Your task to perform on an android device: Search for flights from Buenos aires to Helsinki Image 0: 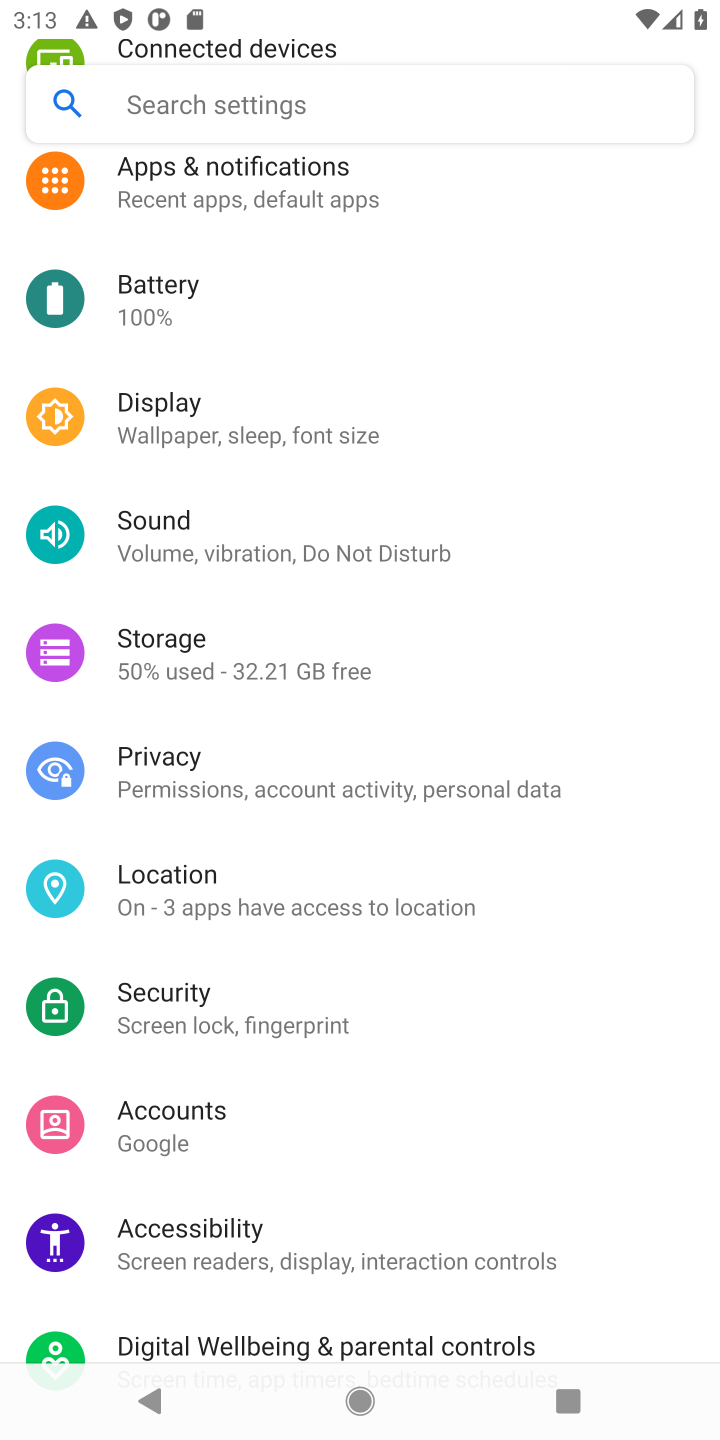
Step 0: press home button
Your task to perform on an android device: Search for flights from Buenos aires to Helsinki Image 1: 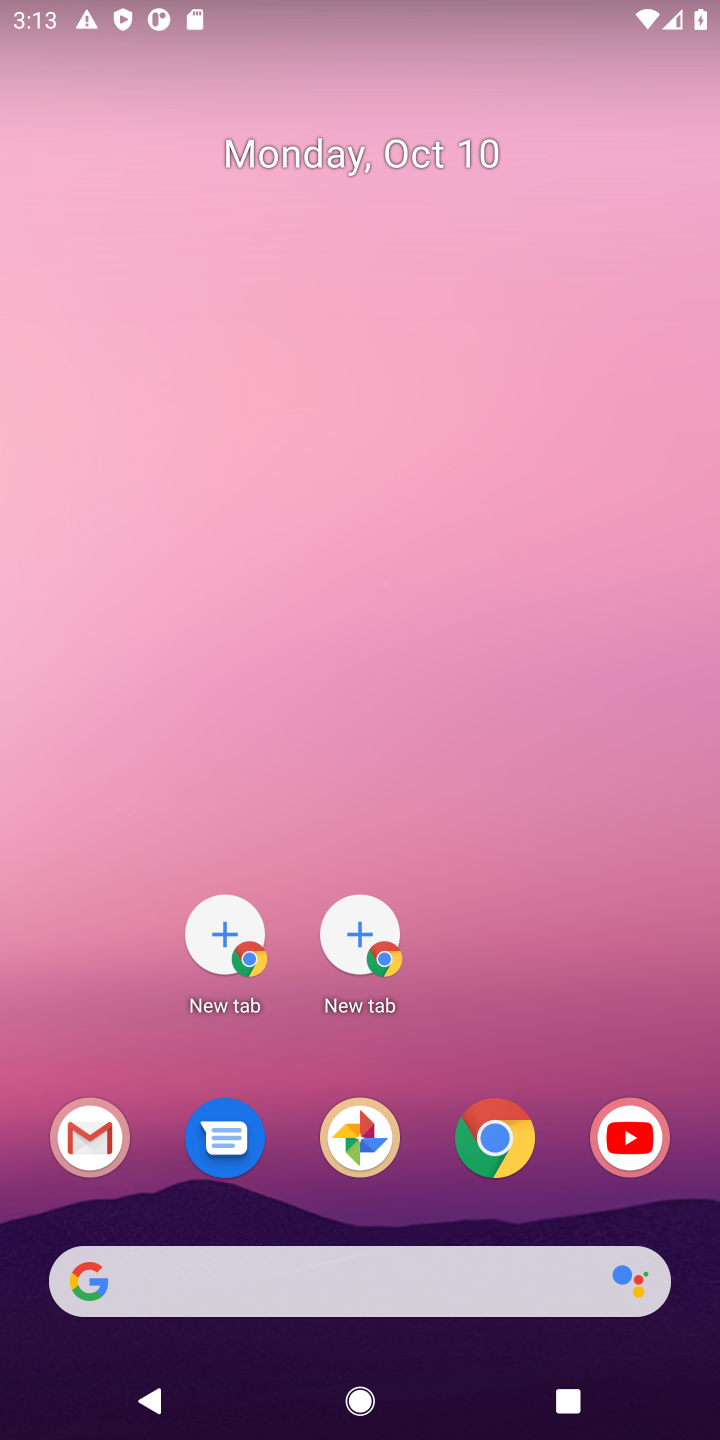
Step 1: click (512, 1151)
Your task to perform on an android device: Search for flights from Buenos aires to Helsinki Image 2: 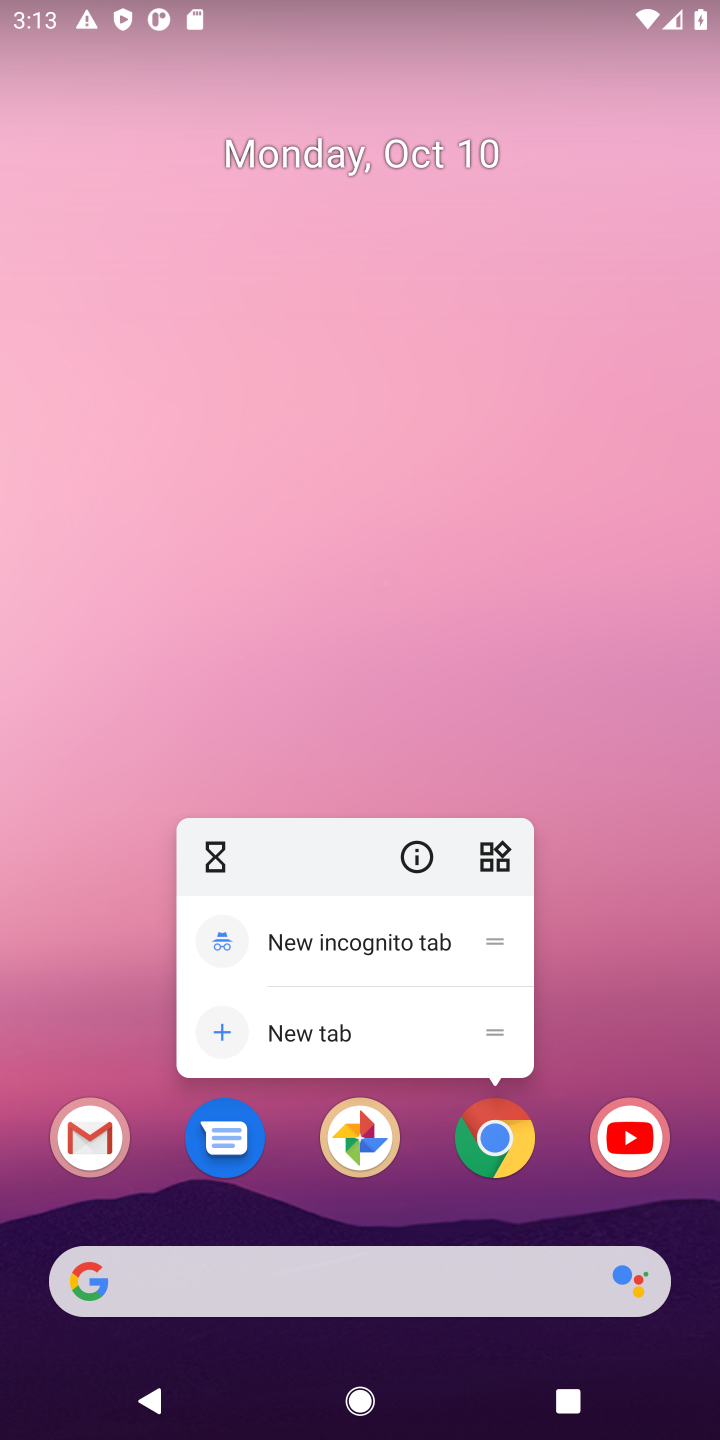
Step 2: click (496, 1165)
Your task to perform on an android device: Search for flights from Buenos aires to Helsinki Image 3: 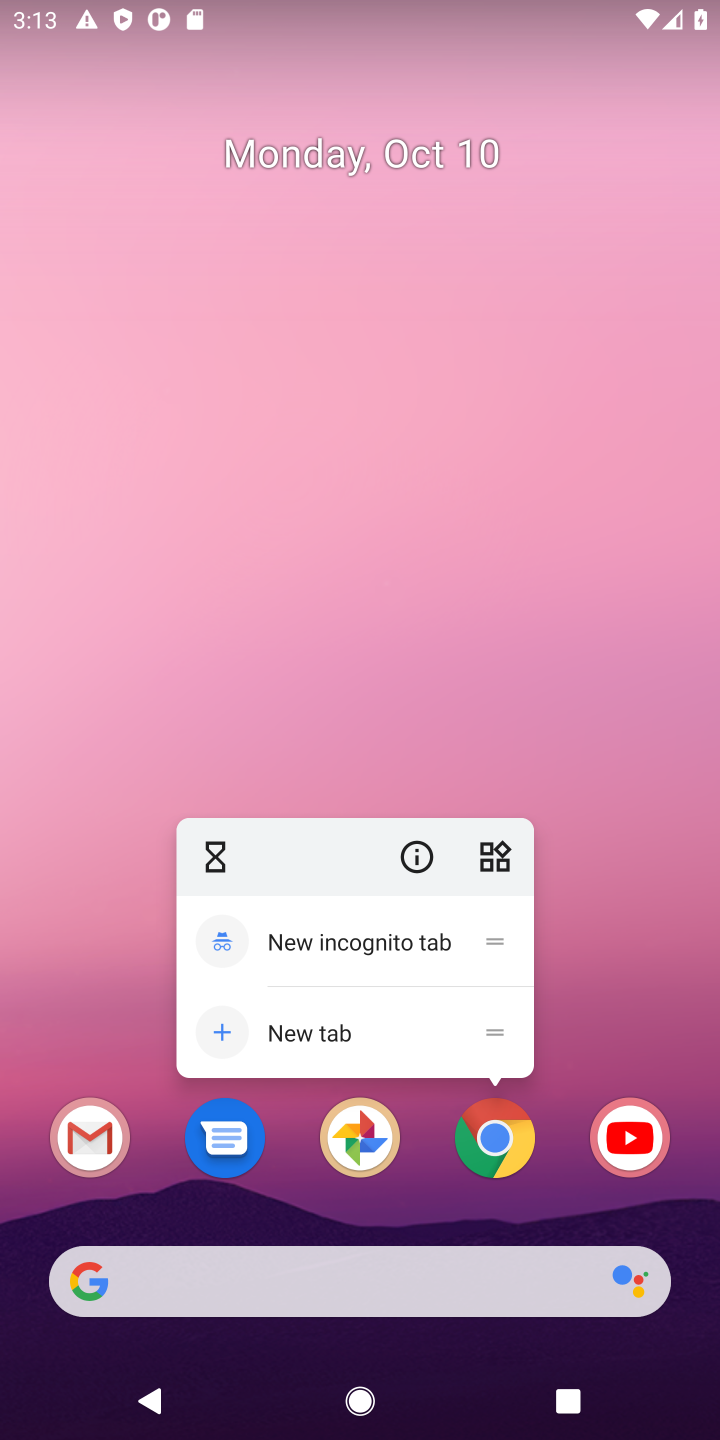
Step 3: click (508, 1139)
Your task to perform on an android device: Search for flights from Buenos aires to Helsinki Image 4: 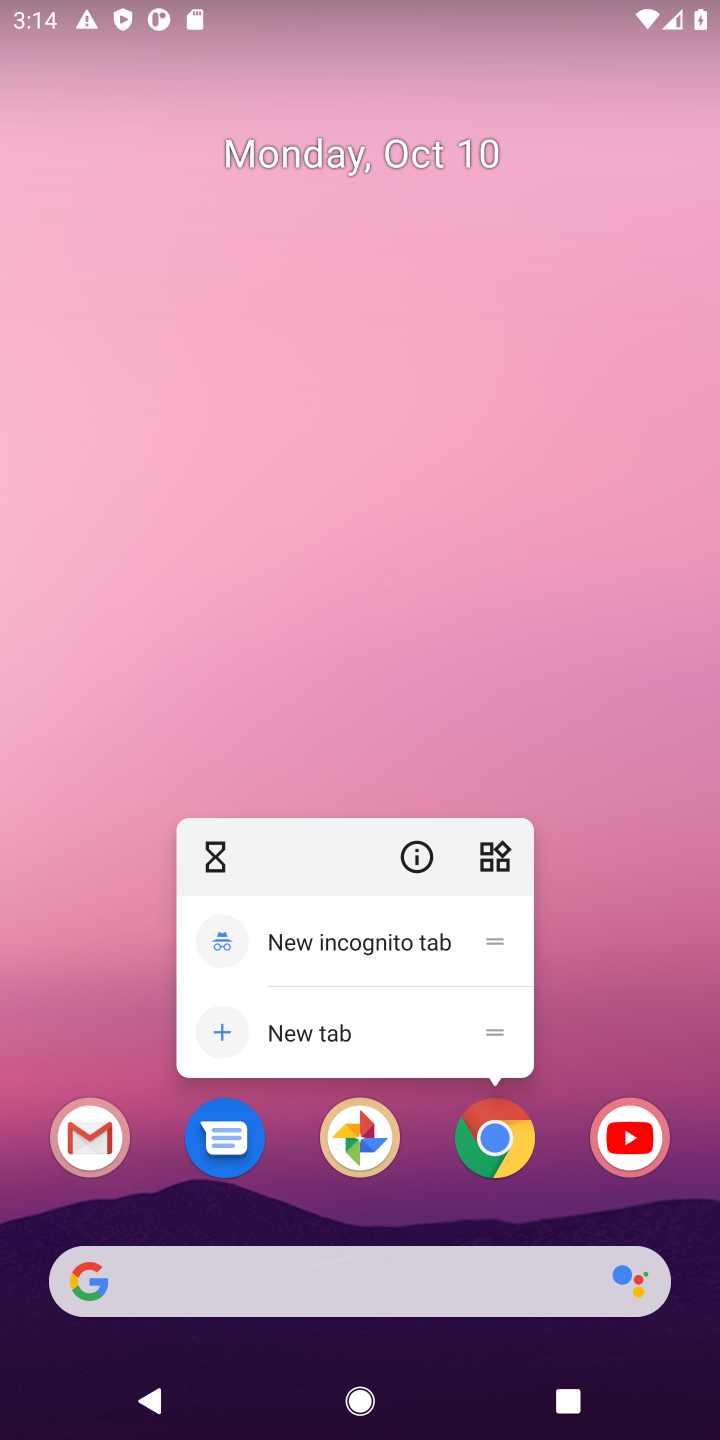
Step 4: click (489, 1143)
Your task to perform on an android device: Search for flights from Buenos aires to Helsinki Image 5: 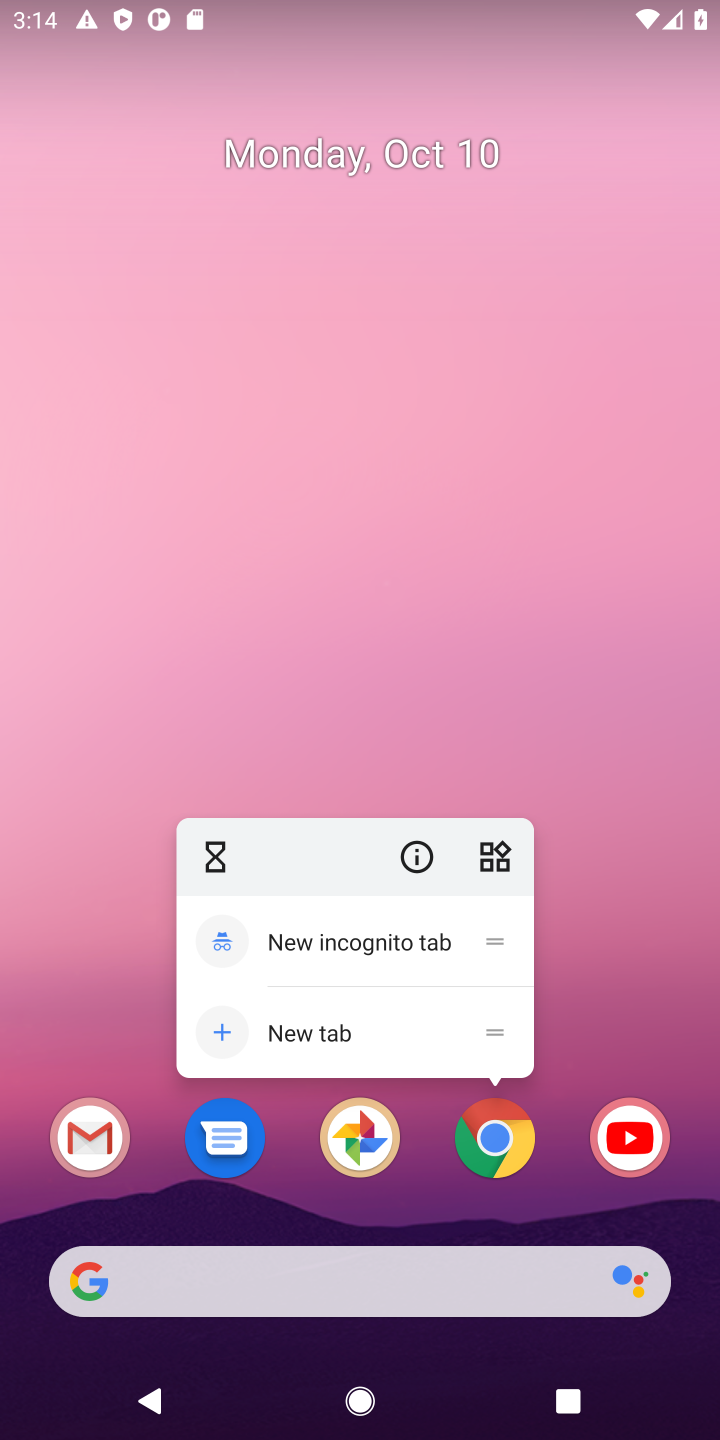
Step 5: drag from (417, 1265) to (360, 280)
Your task to perform on an android device: Search for flights from Buenos aires to Helsinki Image 6: 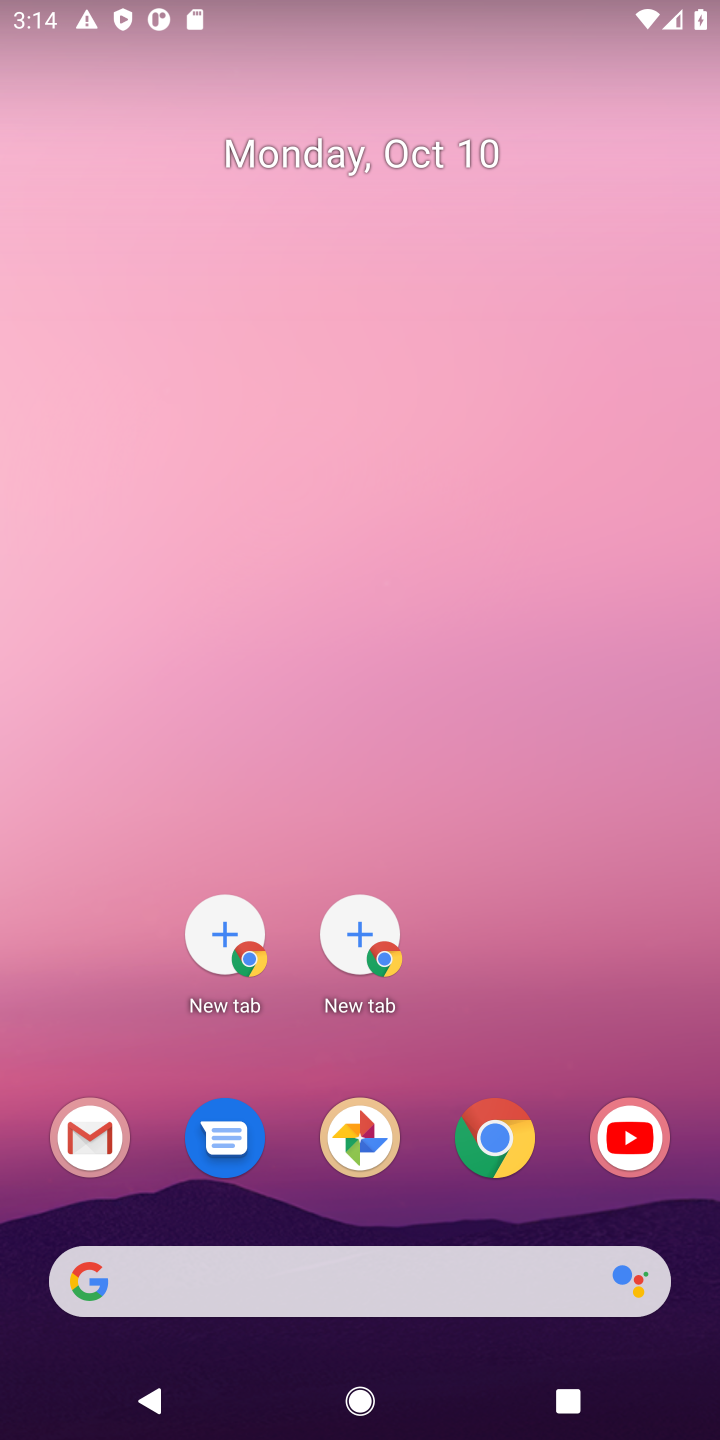
Step 6: click (374, 939)
Your task to perform on an android device: Search for flights from Buenos aires to Helsinki Image 7: 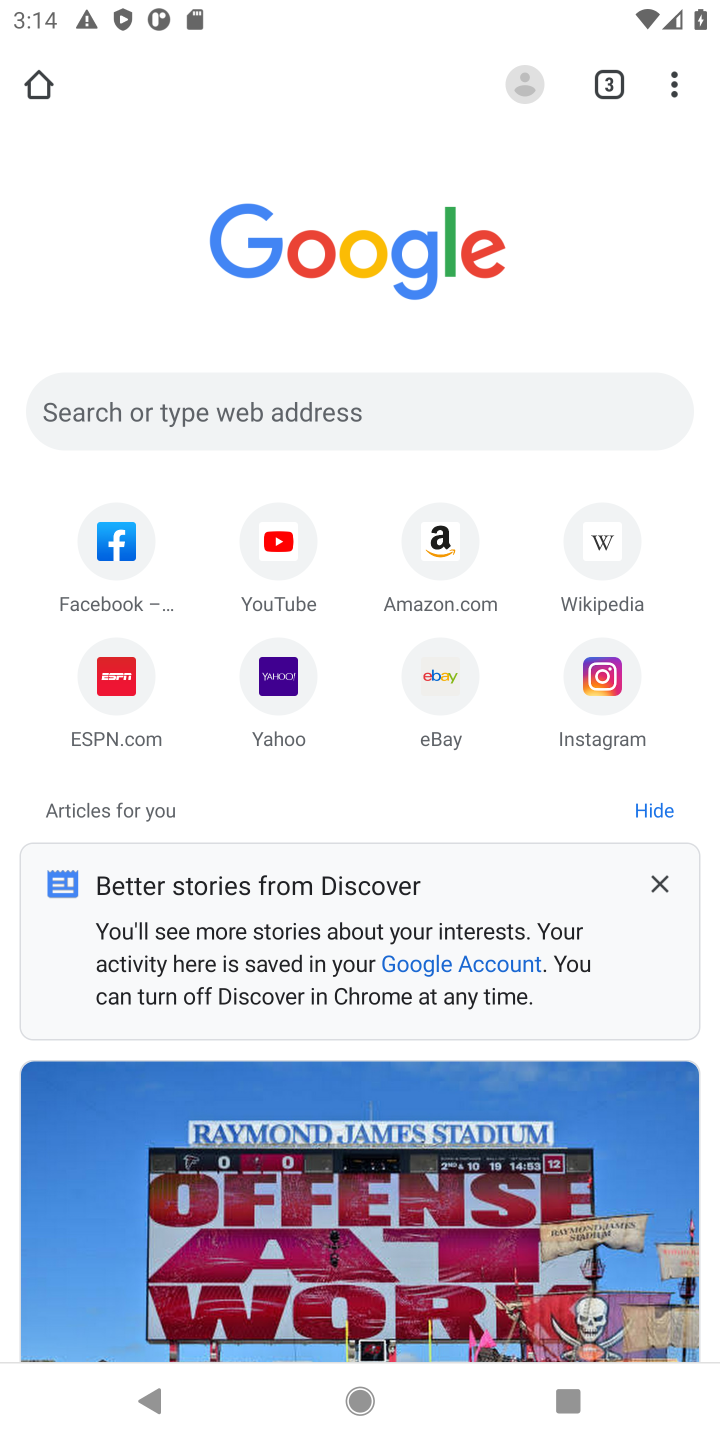
Step 7: click (599, 71)
Your task to perform on an android device: Search for flights from Buenos aires to Helsinki Image 8: 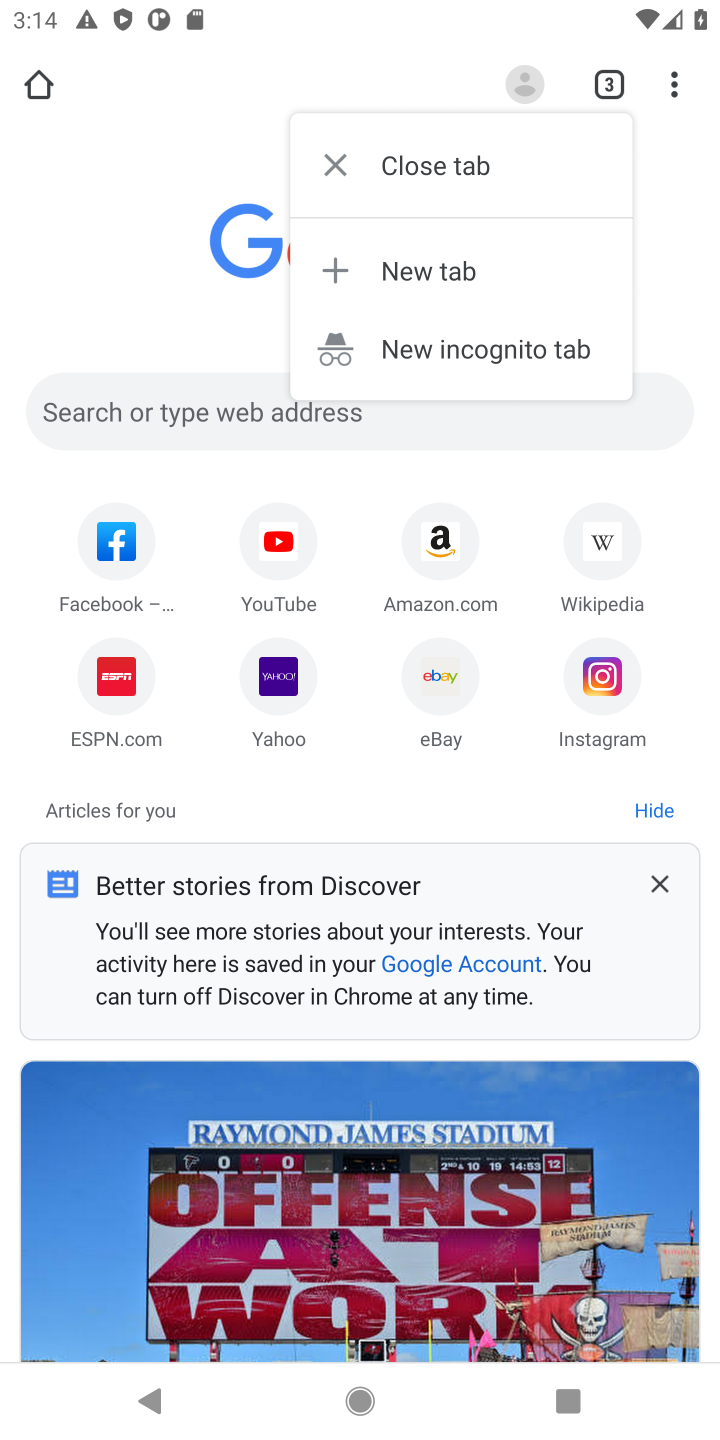
Step 8: click (501, 177)
Your task to perform on an android device: Search for flights from Buenos aires to Helsinki Image 9: 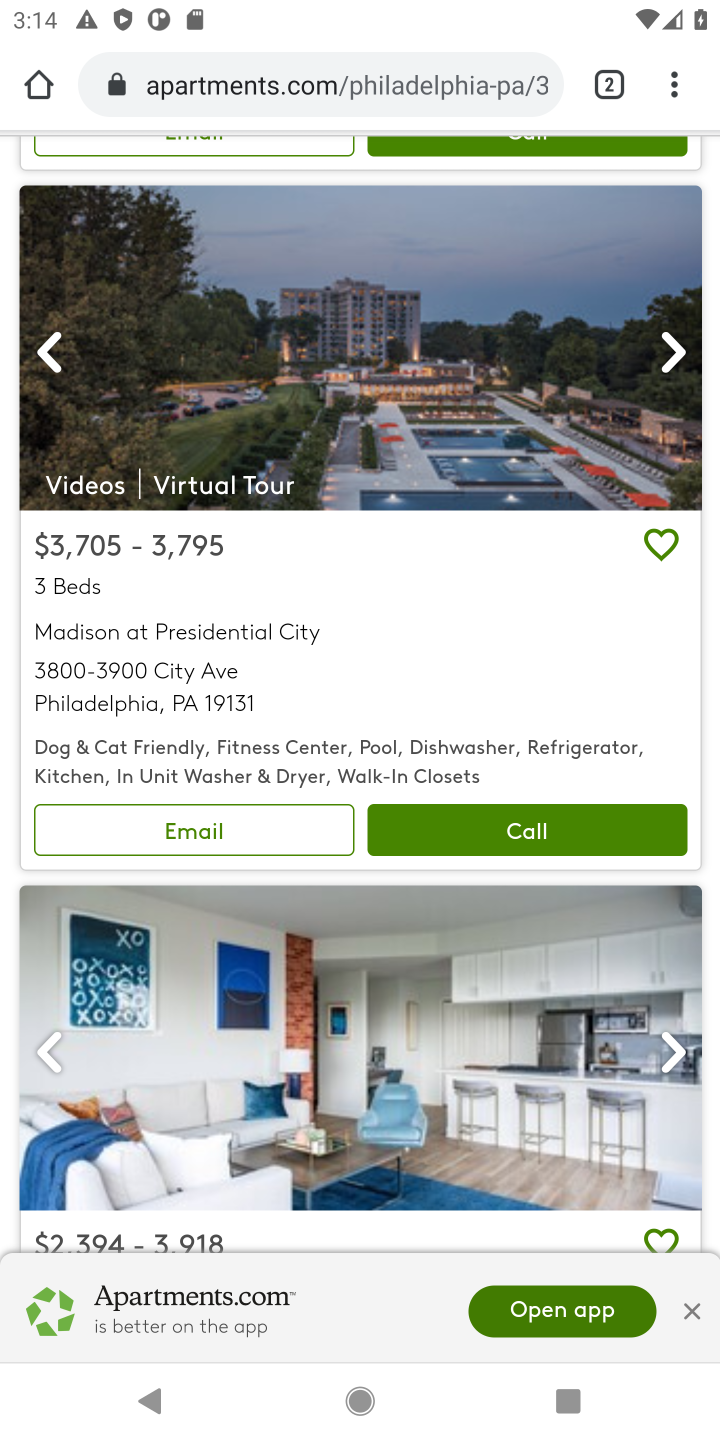
Step 9: click (600, 80)
Your task to perform on an android device: Search for flights from Buenos aires to Helsinki Image 10: 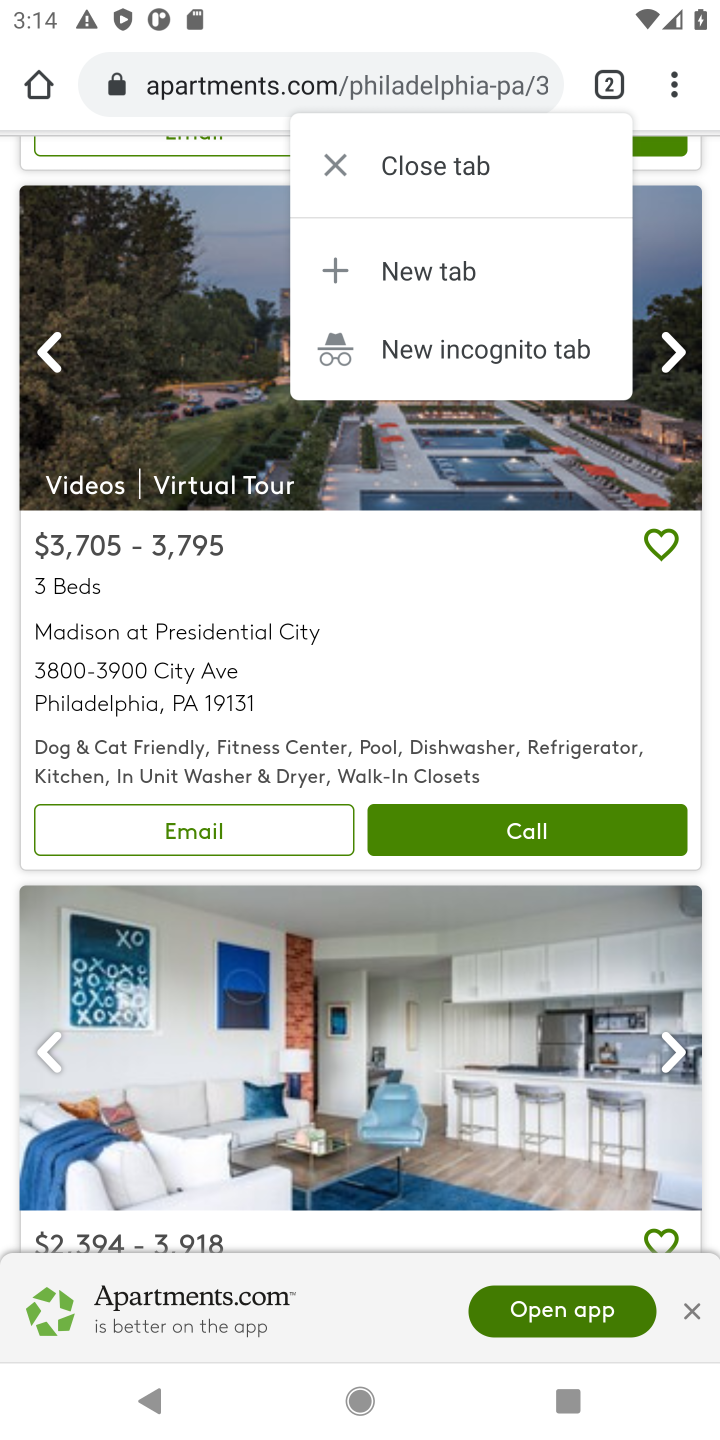
Step 10: click (334, 160)
Your task to perform on an android device: Search for flights from Buenos aires to Helsinki Image 11: 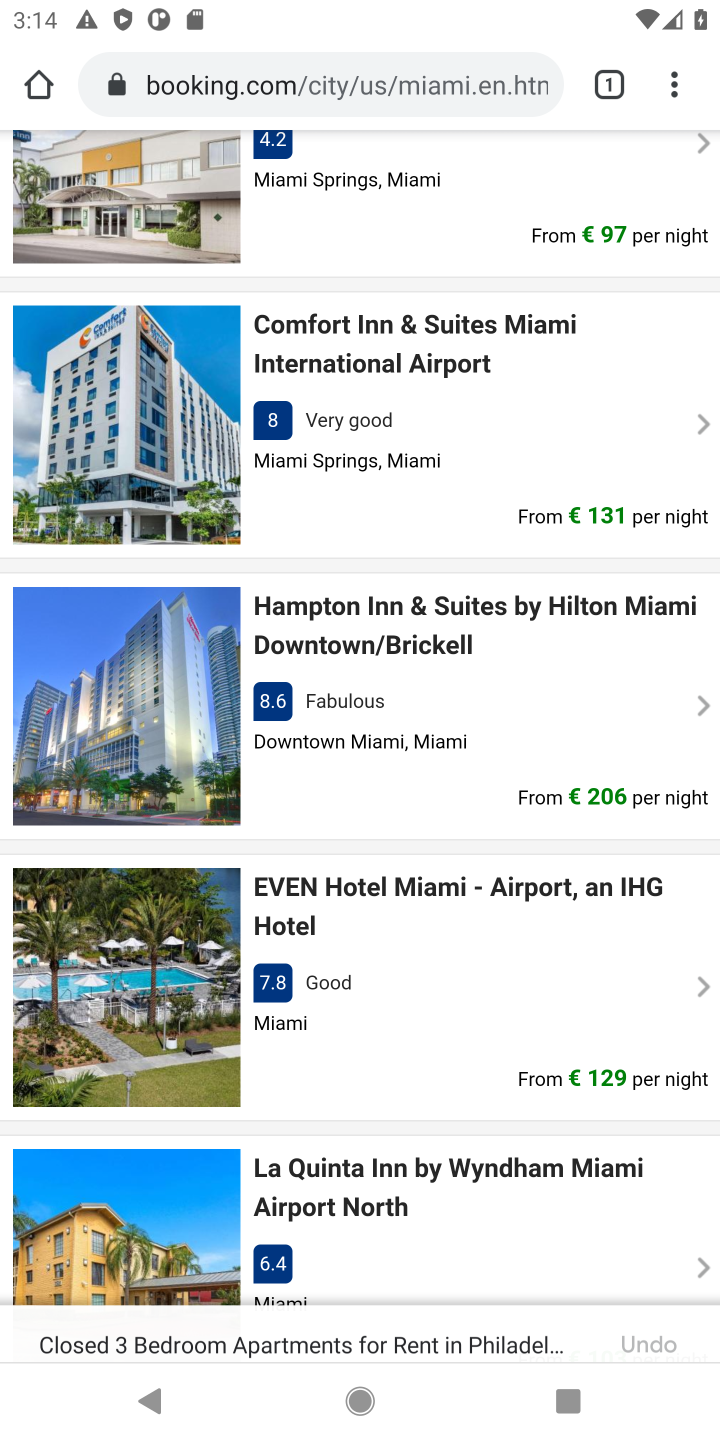
Step 11: click (377, 63)
Your task to perform on an android device: Search for flights from Buenos aires to Helsinki Image 12: 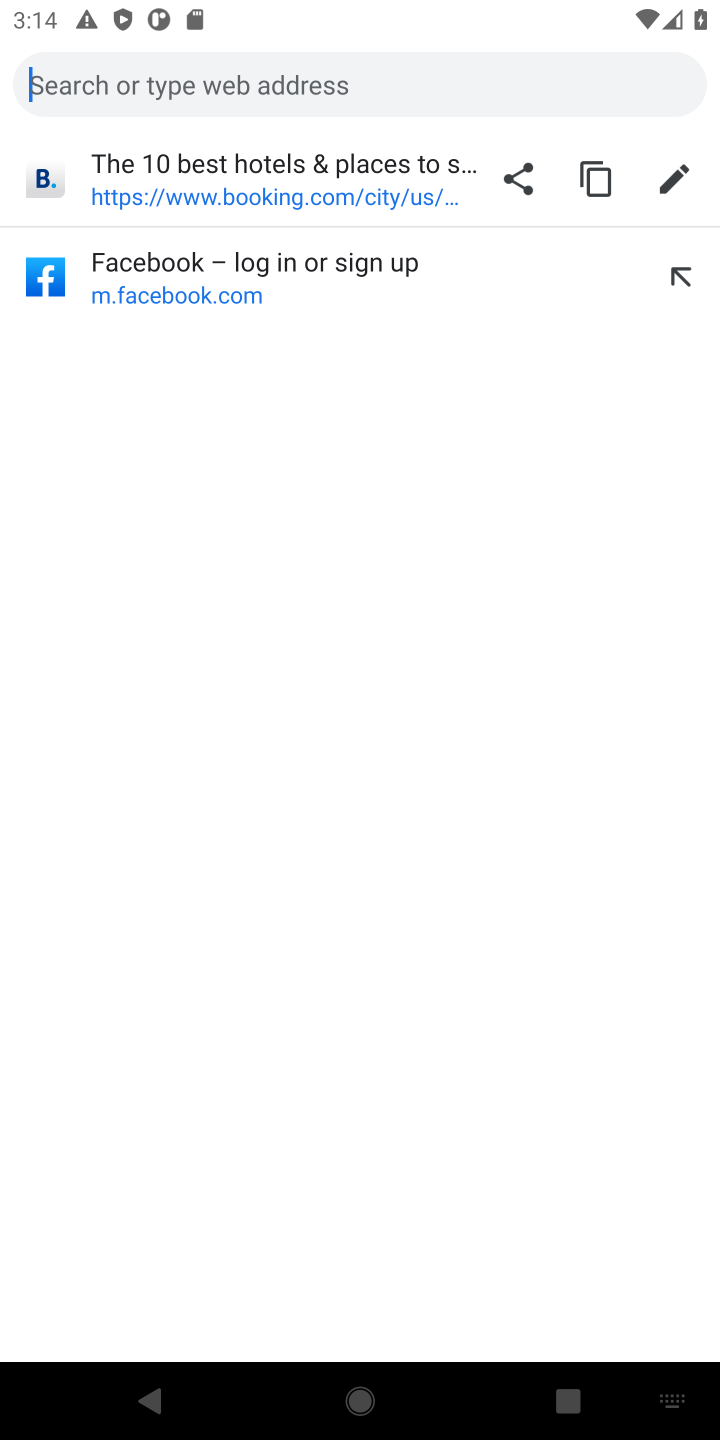
Step 12: type "flights from Buenos aired to Helsinki"
Your task to perform on an android device: Search for flights from Buenos aires to Helsinki Image 13: 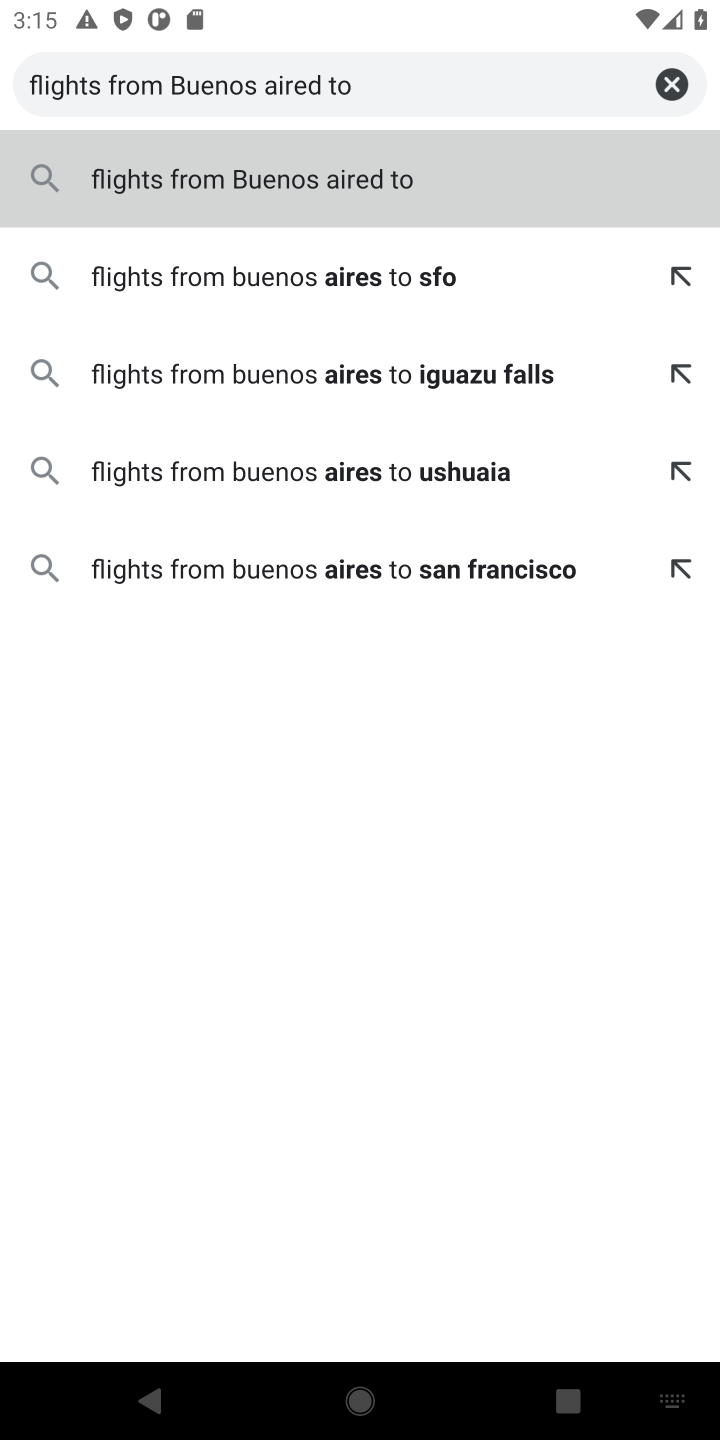
Step 13: type " Helsinki"
Your task to perform on an android device: Search for flights from Buenos aires to Helsinki Image 14: 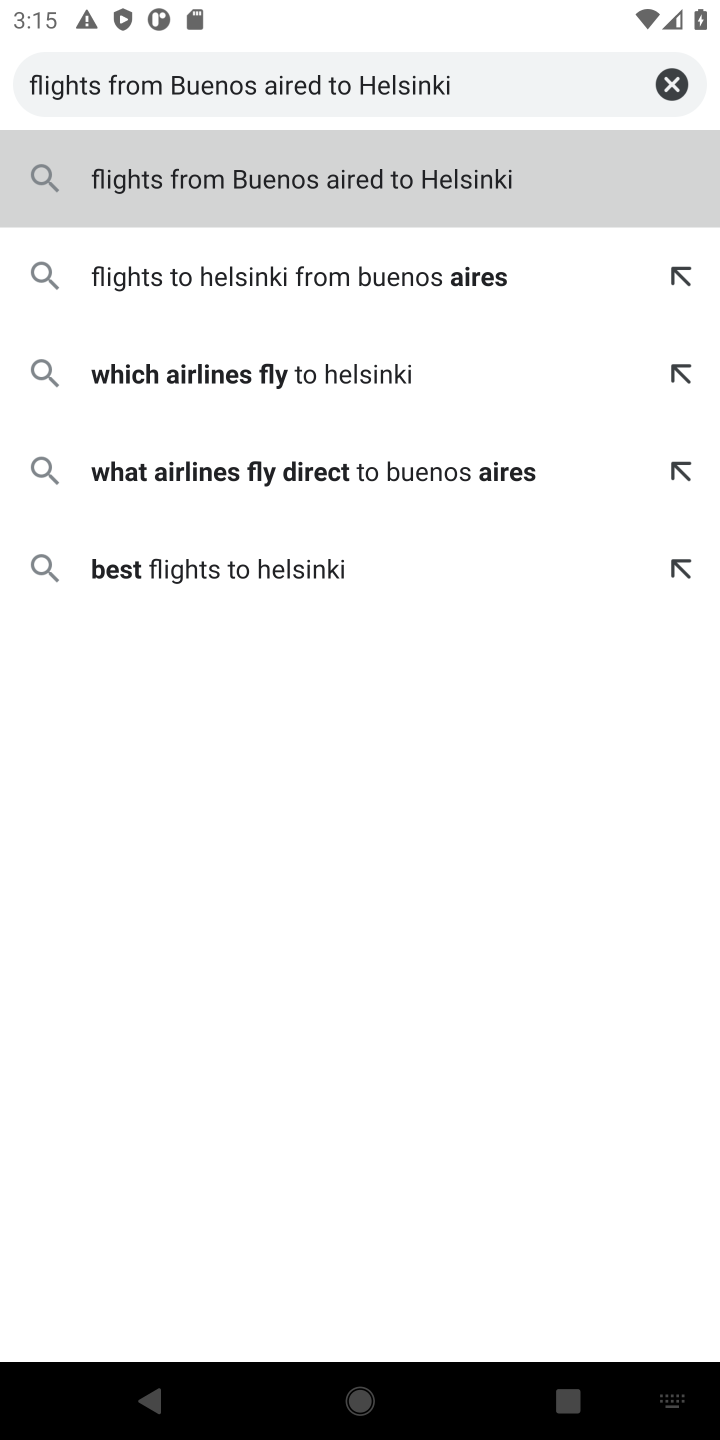
Step 14: press enter
Your task to perform on an android device: Search for flights from Buenos aires to Helsinki Image 15: 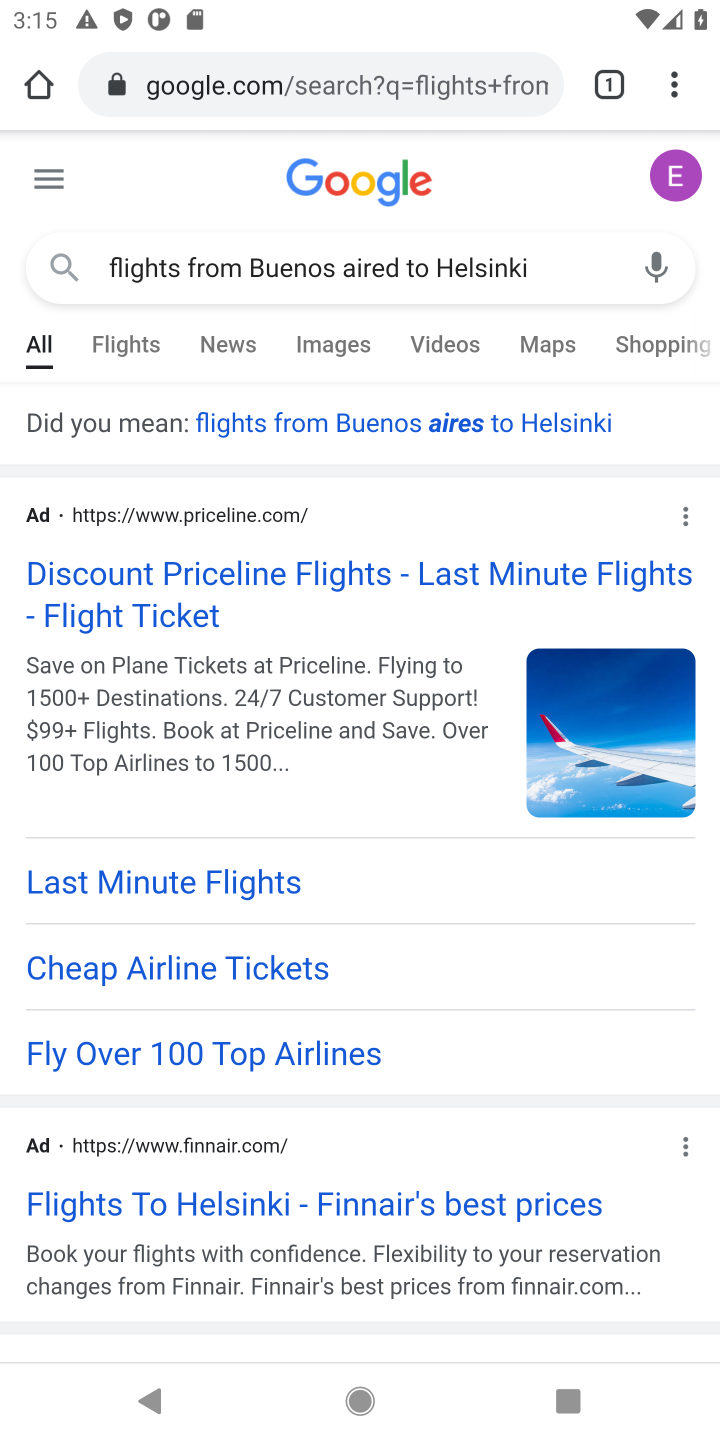
Step 15: drag from (469, 1110) to (462, 369)
Your task to perform on an android device: Search for flights from Buenos aires to Helsinki Image 16: 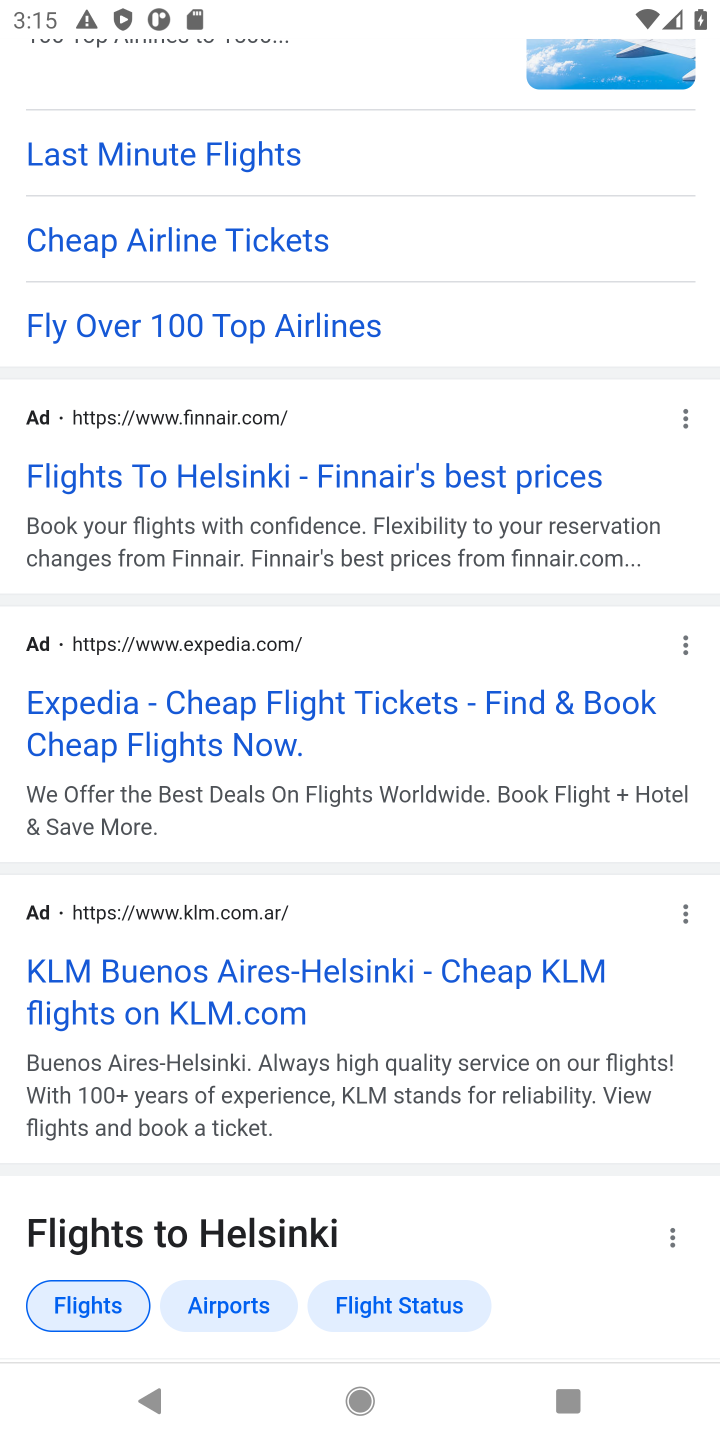
Step 16: drag from (404, 1203) to (494, 319)
Your task to perform on an android device: Search for flights from Buenos aires to Helsinki Image 17: 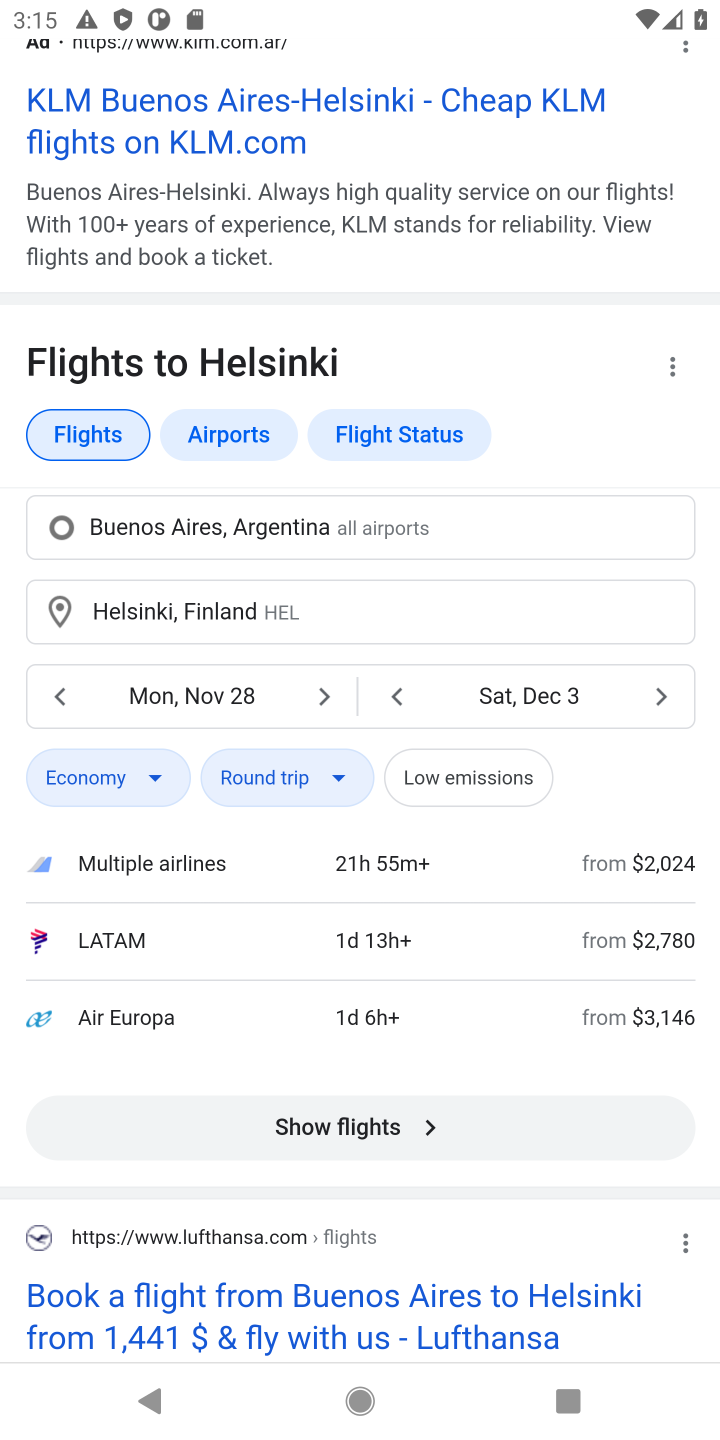
Step 17: click (438, 1141)
Your task to perform on an android device: Search for flights from Buenos aires to Helsinki Image 18: 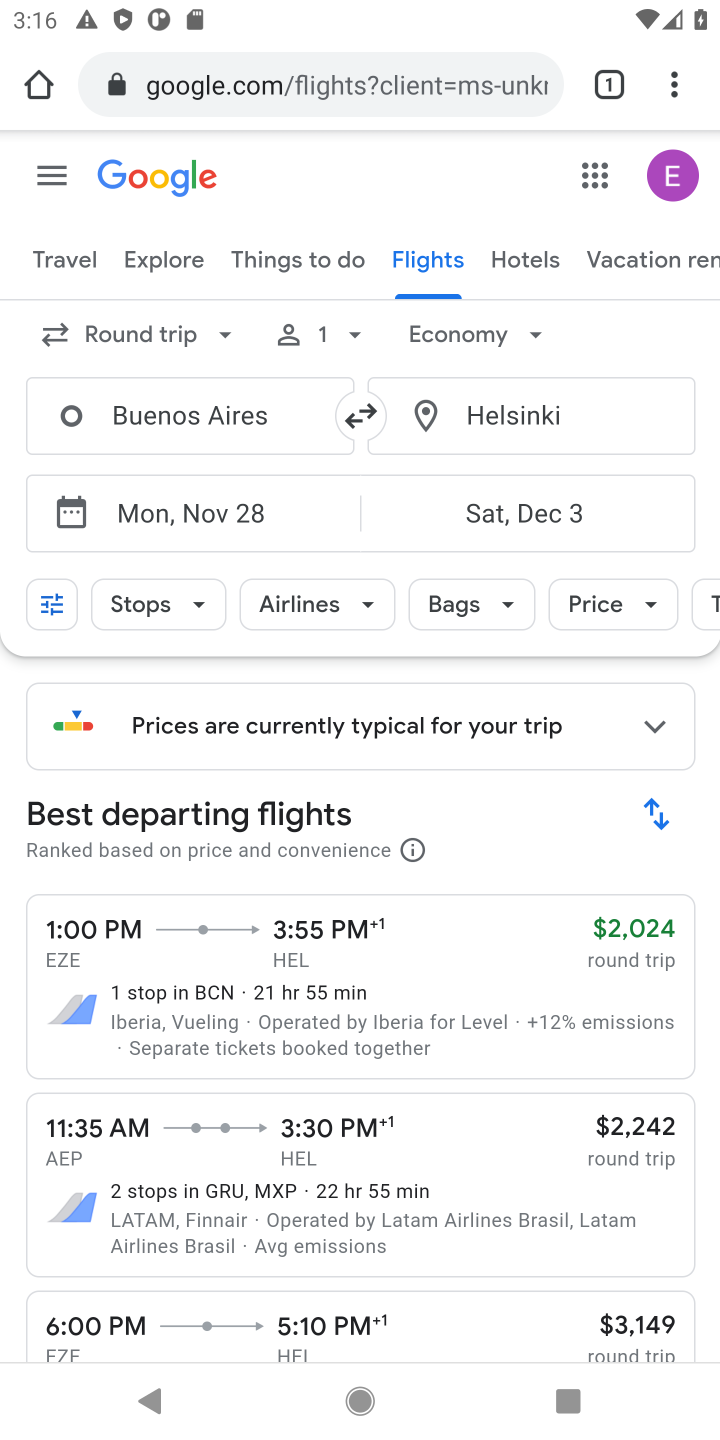
Step 18: task complete